Your task to perform on an android device: turn on priority inbox in the gmail app Image 0: 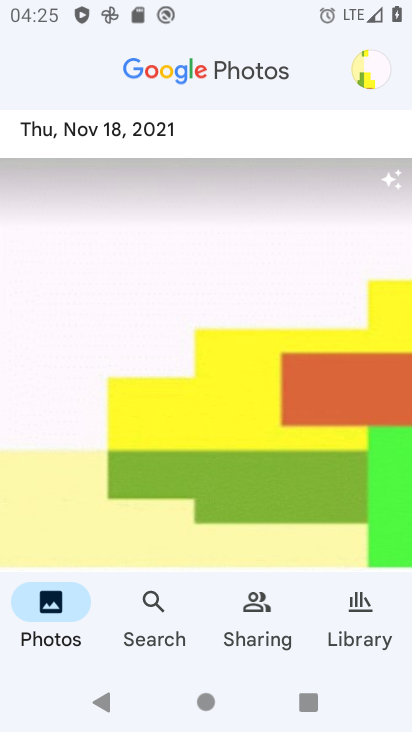
Step 0: press home button
Your task to perform on an android device: turn on priority inbox in the gmail app Image 1: 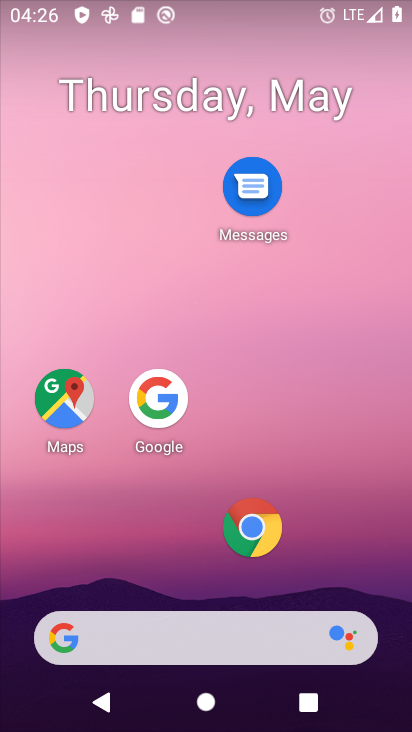
Step 1: drag from (207, 583) to (203, 227)
Your task to perform on an android device: turn on priority inbox in the gmail app Image 2: 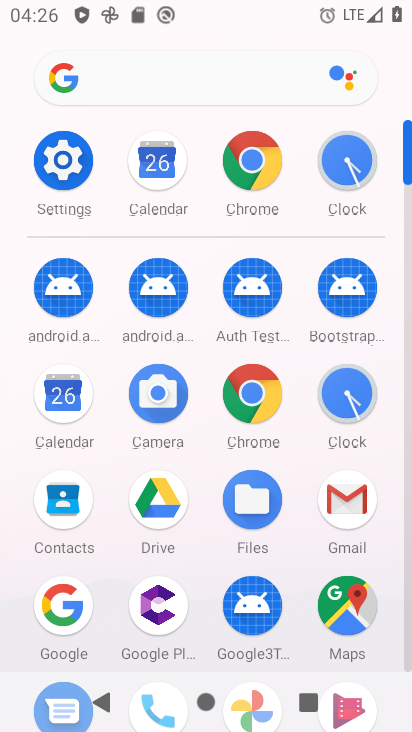
Step 2: click (349, 515)
Your task to perform on an android device: turn on priority inbox in the gmail app Image 3: 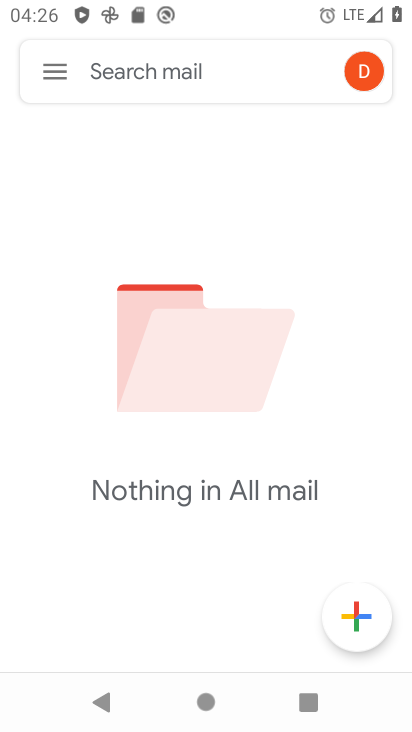
Step 3: click (58, 70)
Your task to perform on an android device: turn on priority inbox in the gmail app Image 4: 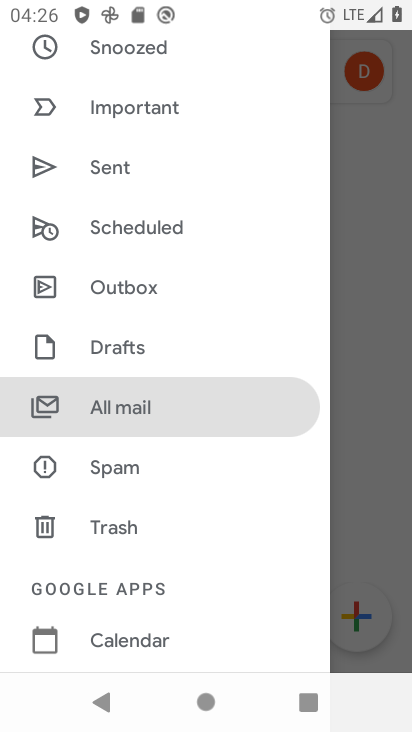
Step 4: drag from (184, 544) to (253, 60)
Your task to perform on an android device: turn on priority inbox in the gmail app Image 5: 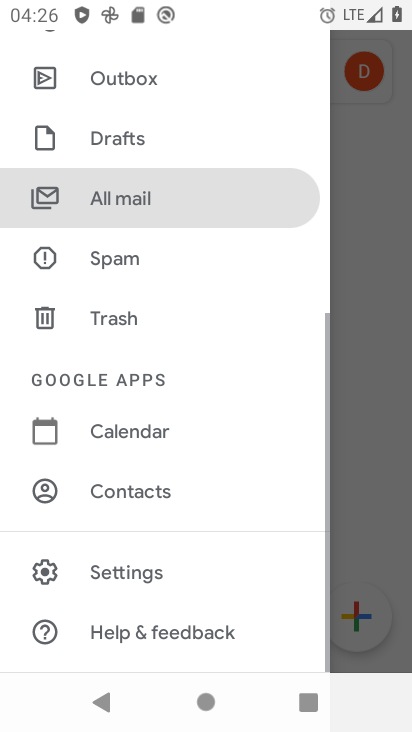
Step 5: click (161, 570)
Your task to perform on an android device: turn on priority inbox in the gmail app Image 6: 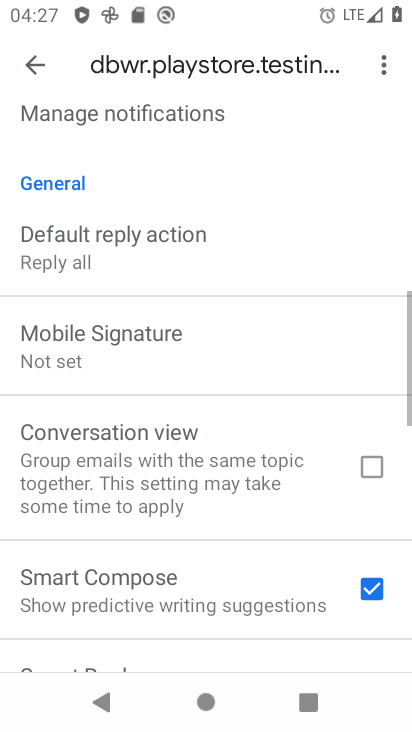
Step 6: drag from (165, 542) to (210, 170)
Your task to perform on an android device: turn on priority inbox in the gmail app Image 7: 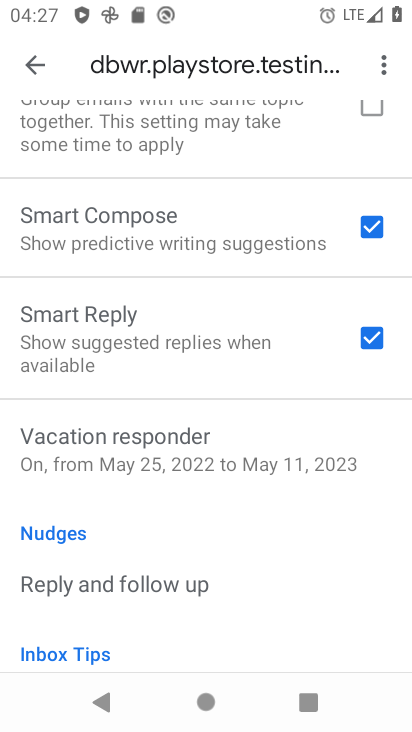
Step 7: drag from (172, 209) to (368, 721)
Your task to perform on an android device: turn on priority inbox in the gmail app Image 8: 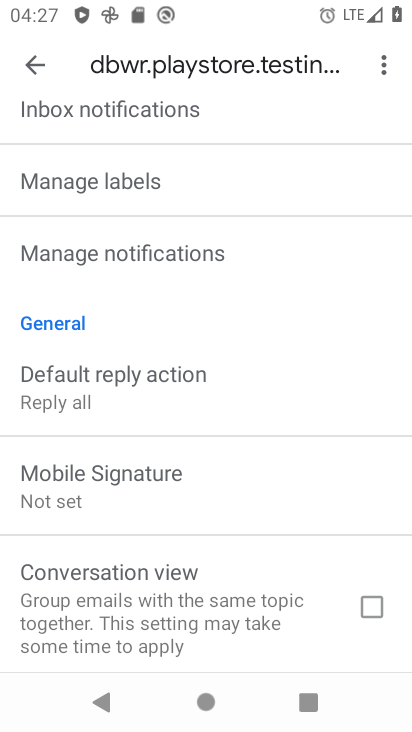
Step 8: drag from (180, 208) to (362, 717)
Your task to perform on an android device: turn on priority inbox in the gmail app Image 9: 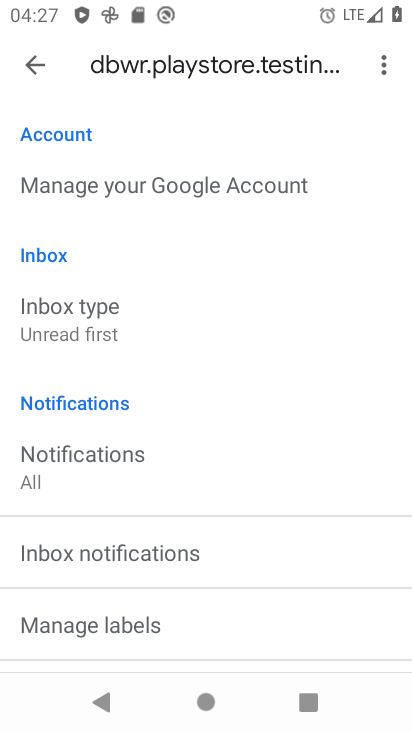
Step 9: drag from (115, 223) to (326, 684)
Your task to perform on an android device: turn on priority inbox in the gmail app Image 10: 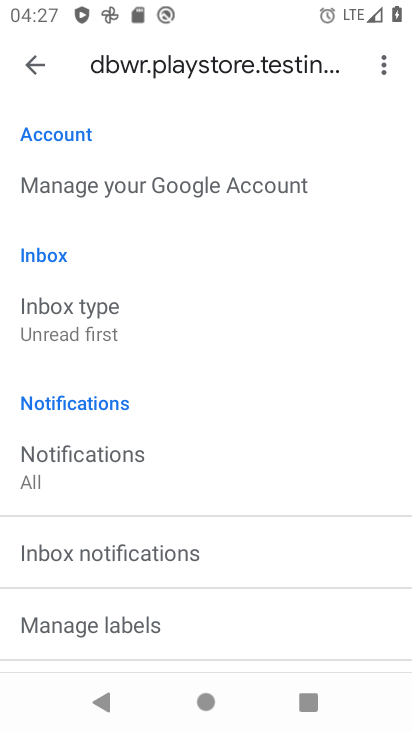
Step 10: click (92, 331)
Your task to perform on an android device: turn on priority inbox in the gmail app Image 11: 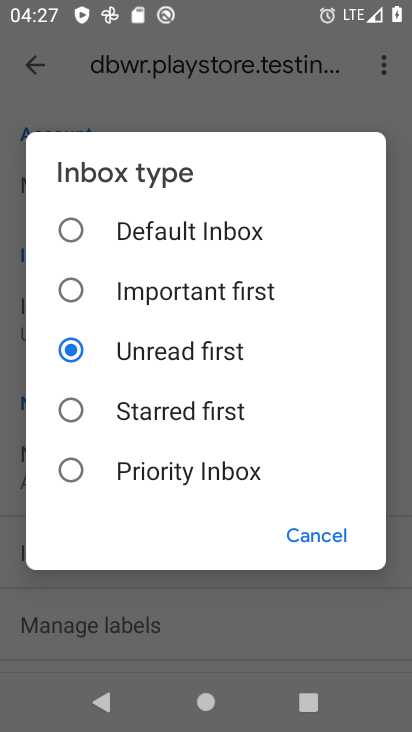
Step 11: click (105, 465)
Your task to perform on an android device: turn on priority inbox in the gmail app Image 12: 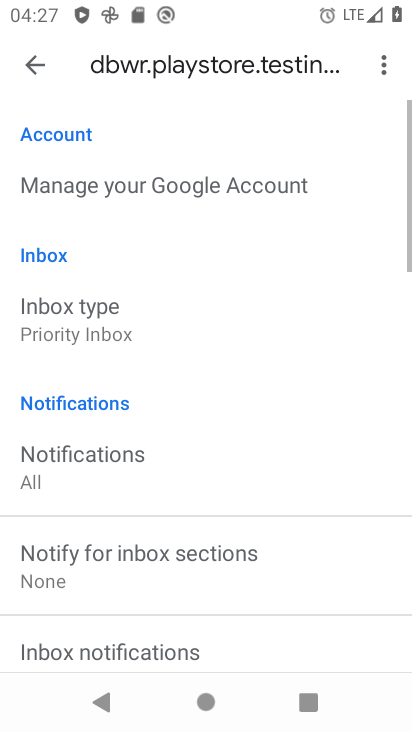
Step 12: task complete